Your task to perform on an android device: check out phone information Image 0: 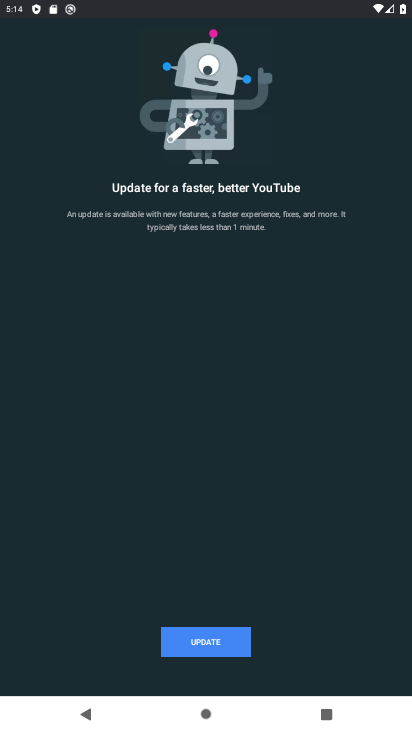
Step 0: press home button
Your task to perform on an android device: check out phone information Image 1: 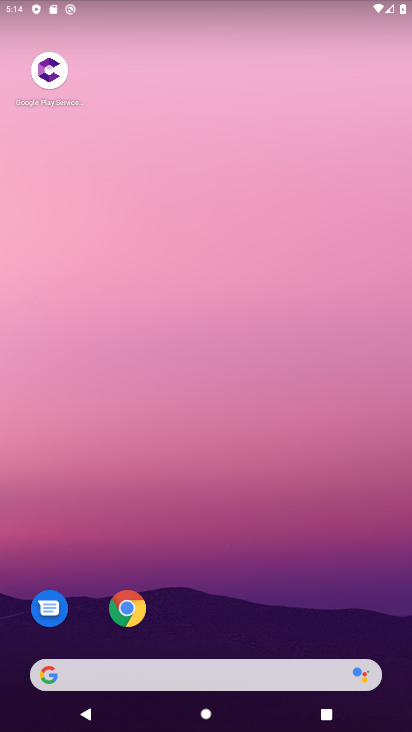
Step 1: drag from (199, 674) to (278, 154)
Your task to perform on an android device: check out phone information Image 2: 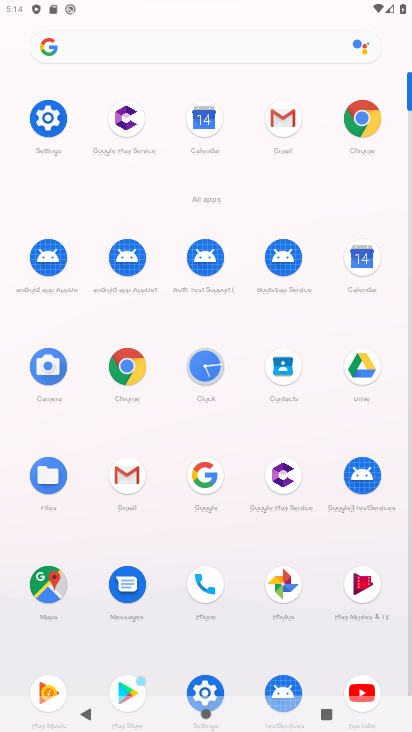
Step 2: click (47, 117)
Your task to perform on an android device: check out phone information Image 3: 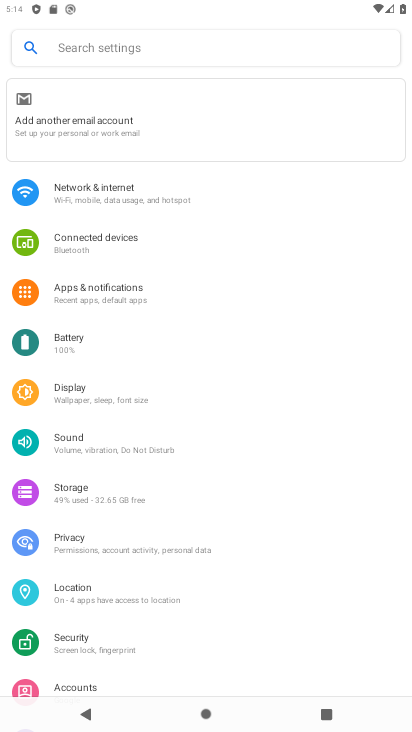
Step 3: drag from (72, 411) to (123, 334)
Your task to perform on an android device: check out phone information Image 4: 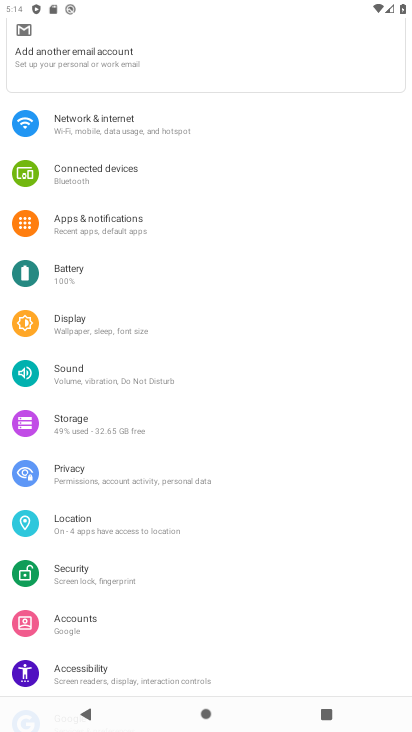
Step 4: drag from (71, 495) to (122, 425)
Your task to perform on an android device: check out phone information Image 5: 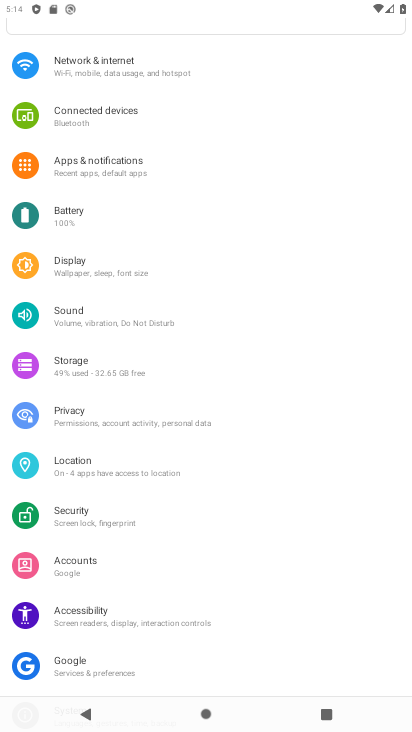
Step 5: drag from (67, 531) to (134, 439)
Your task to perform on an android device: check out phone information Image 6: 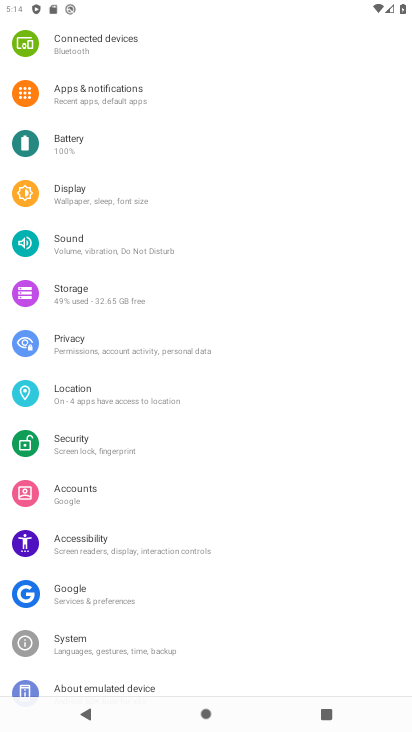
Step 6: drag from (69, 512) to (118, 425)
Your task to perform on an android device: check out phone information Image 7: 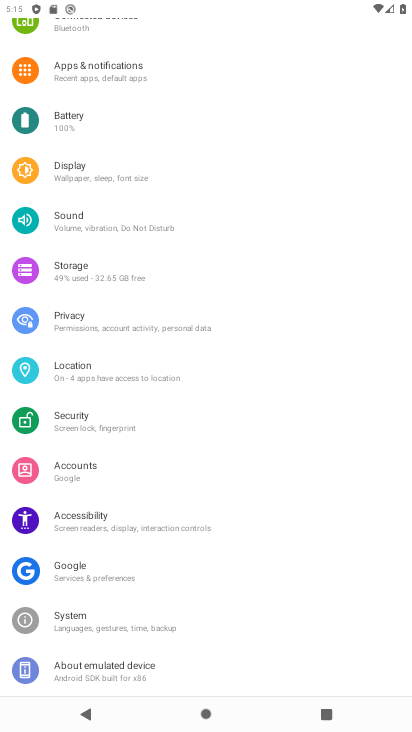
Step 7: click (87, 668)
Your task to perform on an android device: check out phone information Image 8: 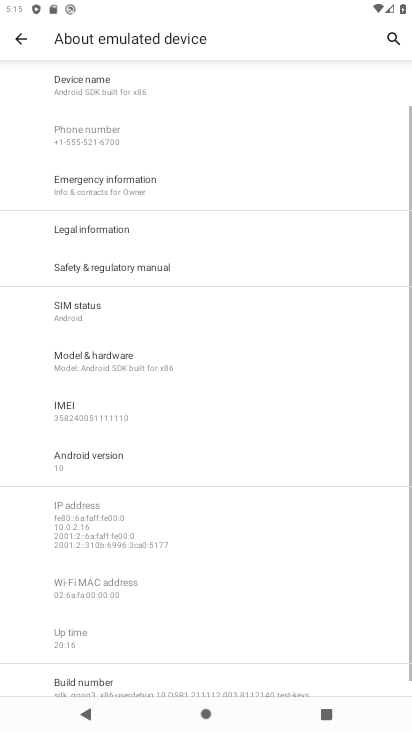
Step 8: task complete